Your task to perform on an android device: Open the calendar and show me this week's events? Image 0: 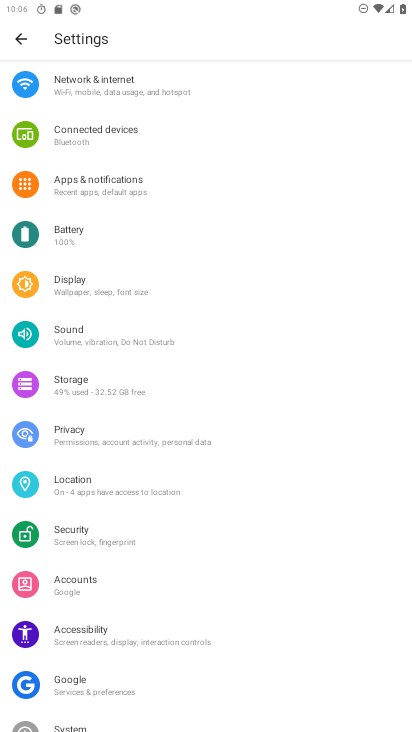
Step 0: press home button
Your task to perform on an android device: Open the calendar and show me this week's events? Image 1: 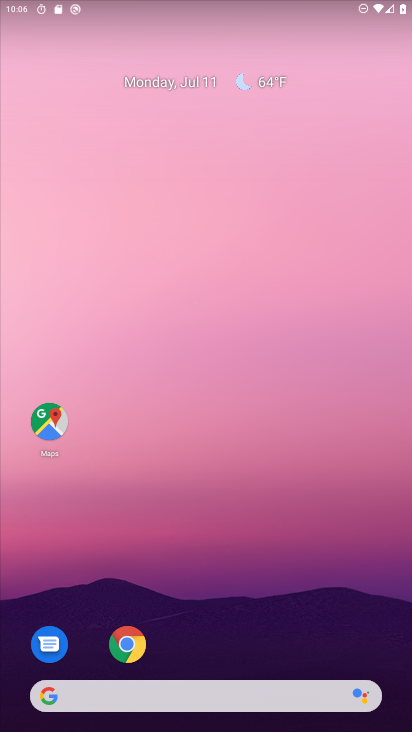
Step 1: drag from (291, 634) to (247, 79)
Your task to perform on an android device: Open the calendar and show me this week's events? Image 2: 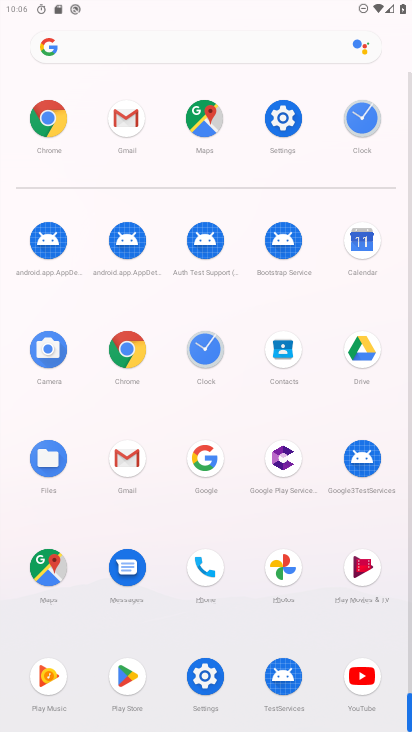
Step 2: click (371, 243)
Your task to perform on an android device: Open the calendar and show me this week's events? Image 3: 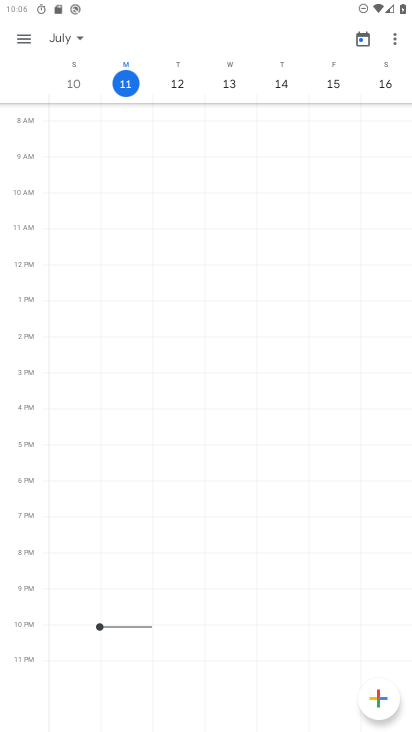
Step 3: task complete